Your task to perform on an android device: Check the news Image 0: 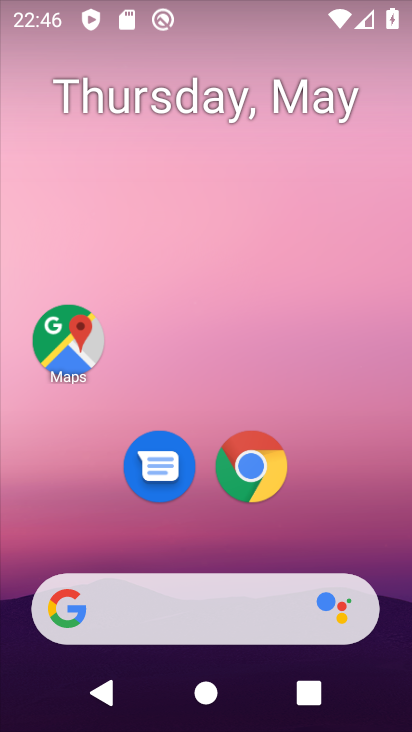
Step 0: drag from (352, 522) to (324, 57)
Your task to perform on an android device: Check the news Image 1: 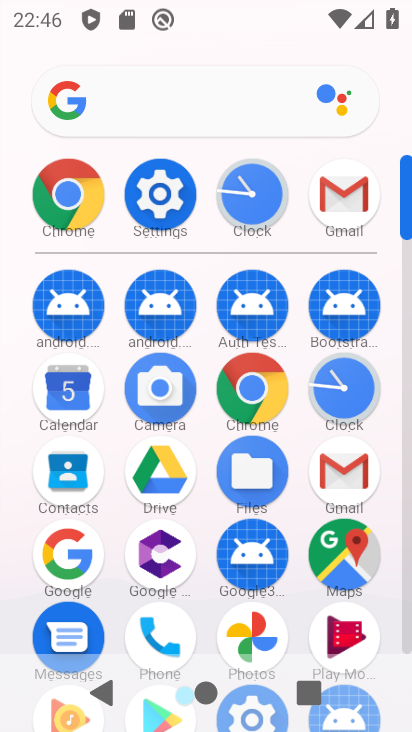
Step 1: drag from (285, 500) to (312, 163)
Your task to perform on an android device: Check the news Image 2: 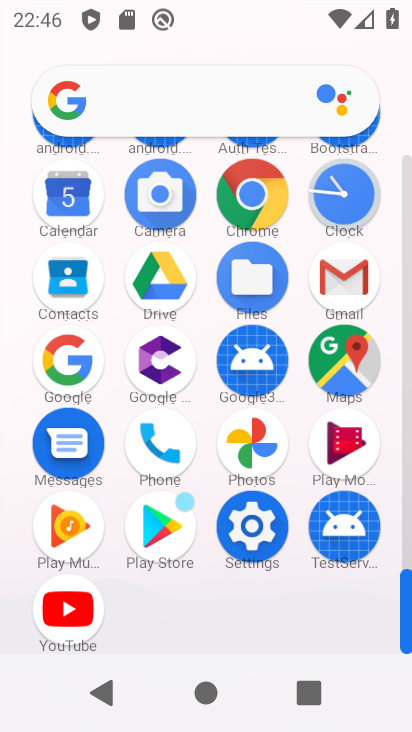
Step 2: click (263, 200)
Your task to perform on an android device: Check the news Image 3: 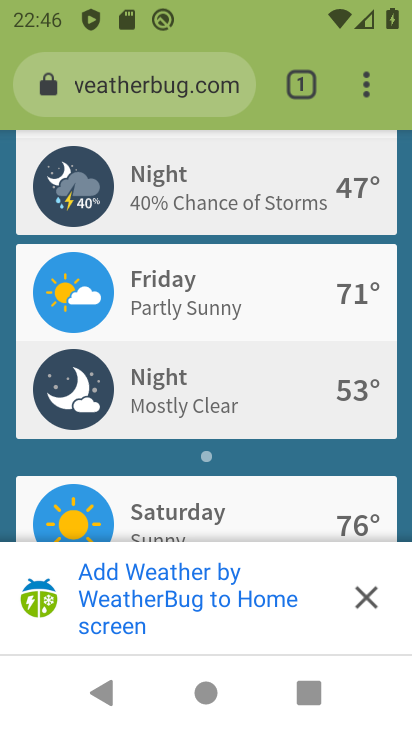
Step 3: click (178, 105)
Your task to perform on an android device: Check the news Image 4: 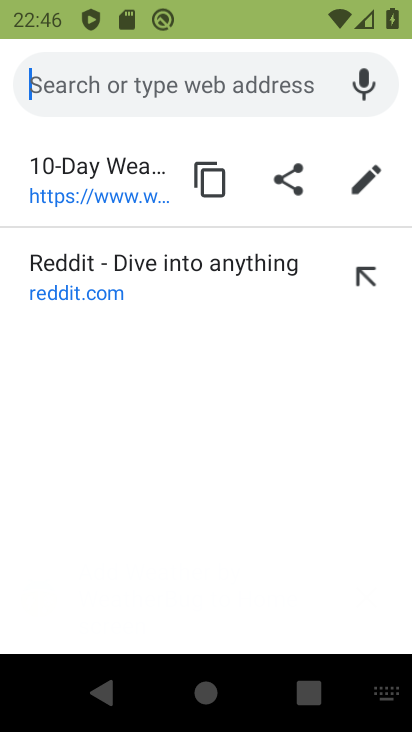
Step 4: type "news"
Your task to perform on an android device: Check the news Image 5: 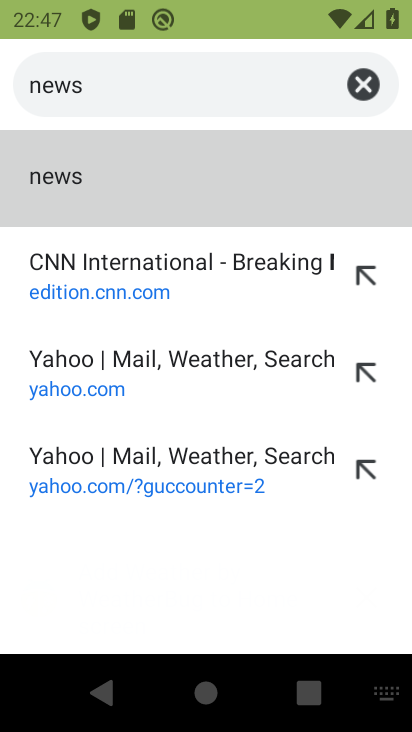
Step 5: click (36, 184)
Your task to perform on an android device: Check the news Image 6: 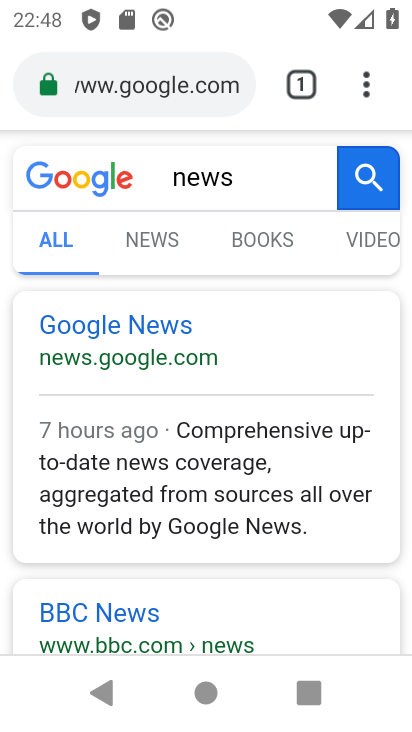
Step 6: click (119, 328)
Your task to perform on an android device: Check the news Image 7: 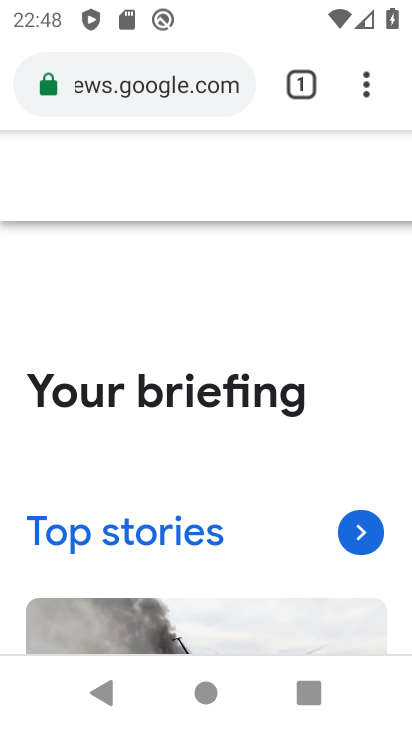
Step 7: task complete